Your task to perform on an android device: What's the weather? Image 0: 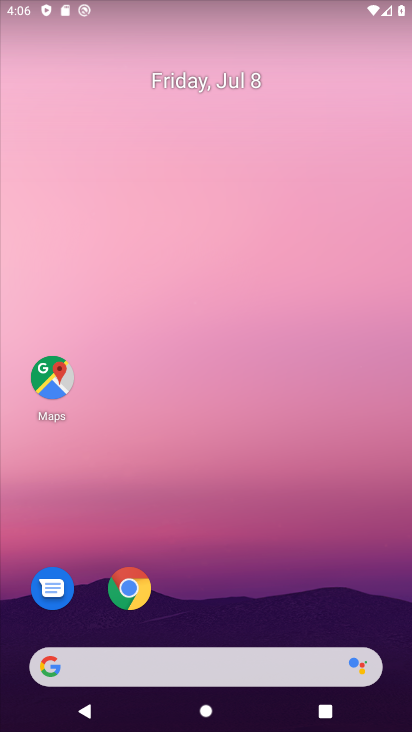
Step 0: click (180, 272)
Your task to perform on an android device: What's the weather? Image 1: 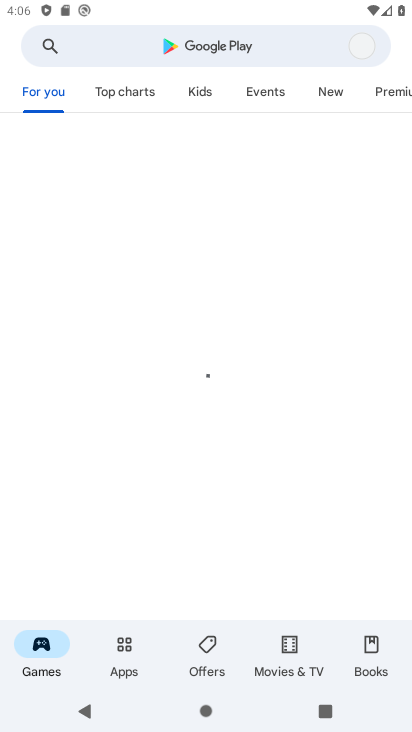
Step 1: press back button
Your task to perform on an android device: What's the weather? Image 2: 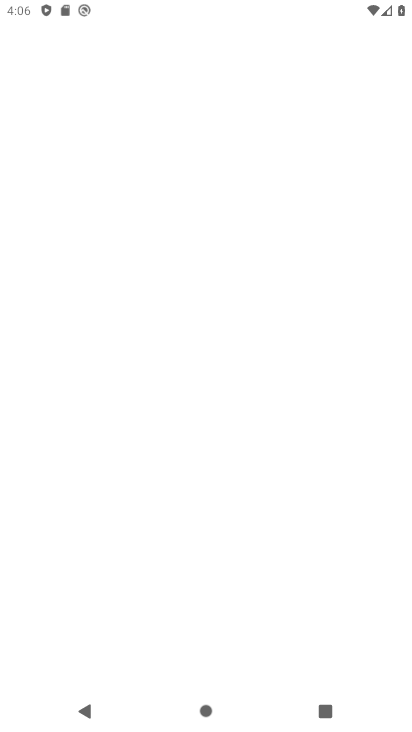
Step 2: press home button
Your task to perform on an android device: What's the weather? Image 3: 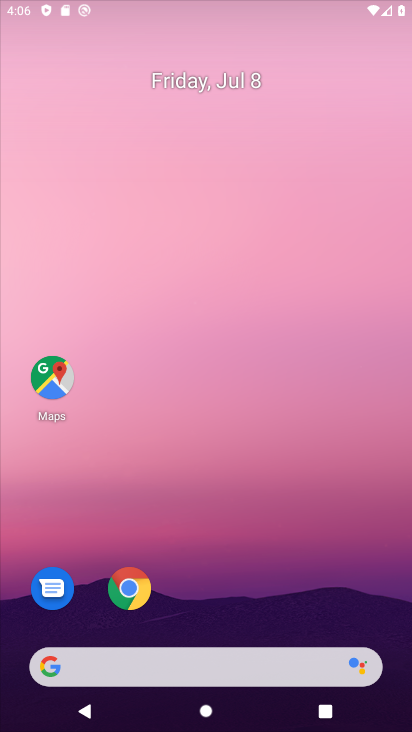
Step 3: press home button
Your task to perform on an android device: What's the weather? Image 4: 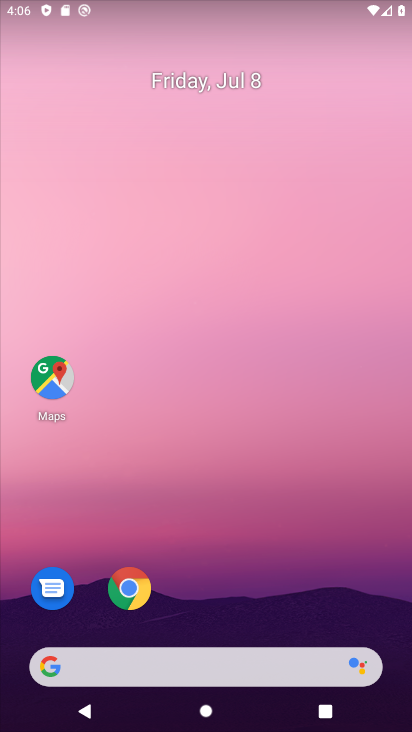
Step 4: drag from (142, 419) to (43, 52)
Your task to perform on an android device: What's the weather? Image 5: 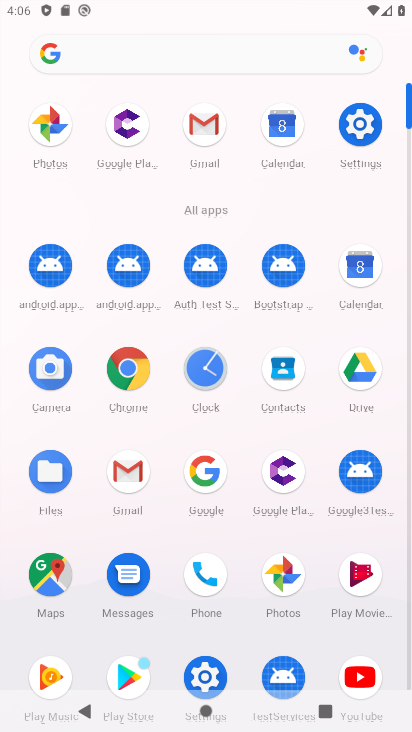
Step 5: click (134, 371)
Your task to perform on an android device: What's the weather? Image 6: 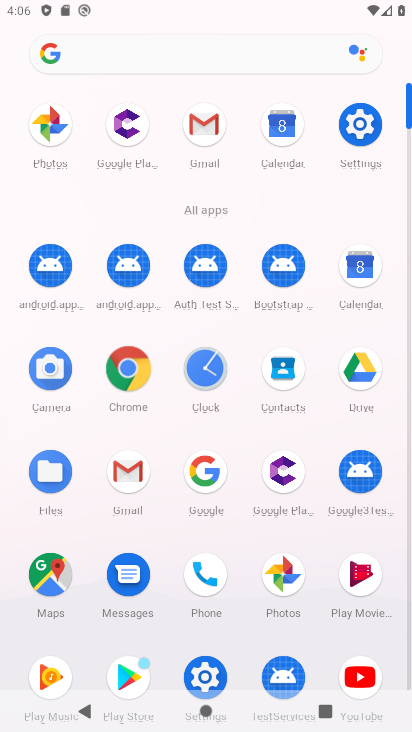
Step 6: click (108, 374)
Your task to perform on an android device: What's the weather? Image 7: 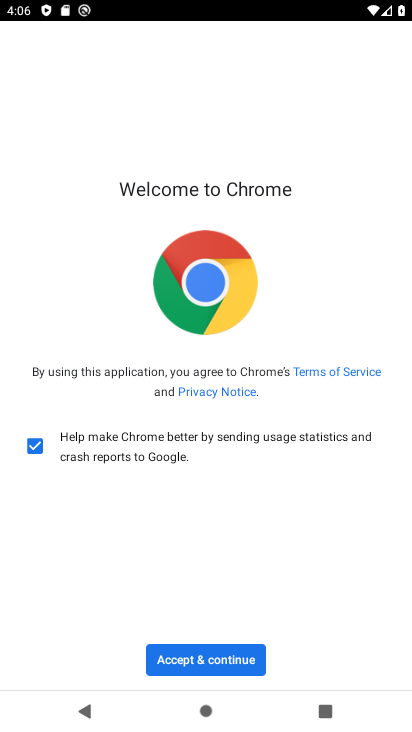
Step 7: click (222, 671)
Your task to perform on an android device: What's the weather? Image 8: 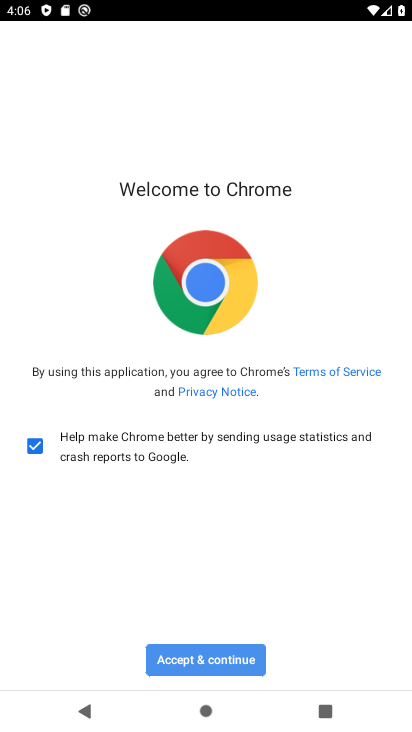
Step 8: click (236, 666)
Your task to perform on an android device: What's the weather? Image 9: 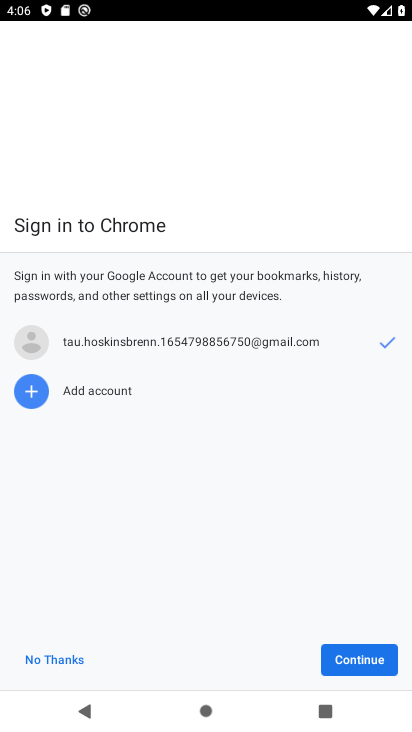
Step 9: click (372, 662)
Your task to perform on an android device: What's the weather? Image 10: 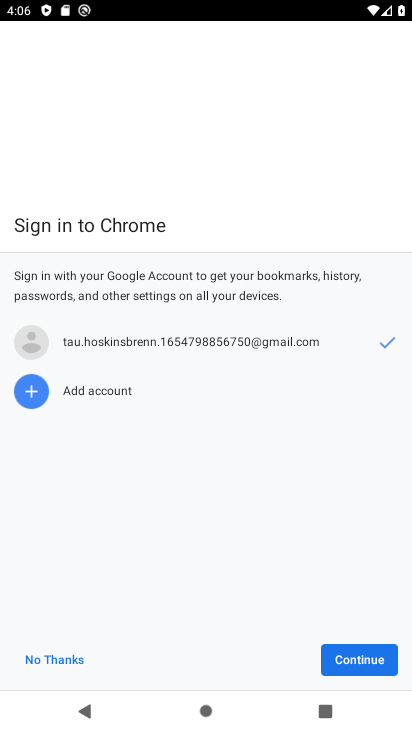
Step 10: click (372, 662)
Your task to perform on an android device: What's the weather? Image 11: 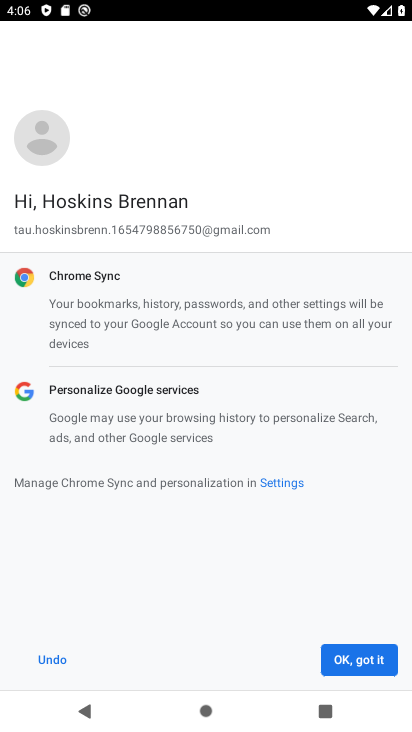
Step 11: click (371, 664)
Your task to perform on an android device: What's the weather? Image 12: 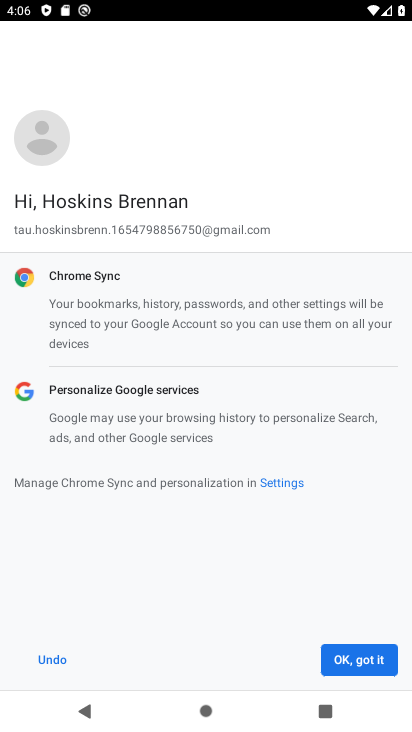
Step 12: click (377, 669)
Your task to perform on an android device: What's the weather? Image 13: 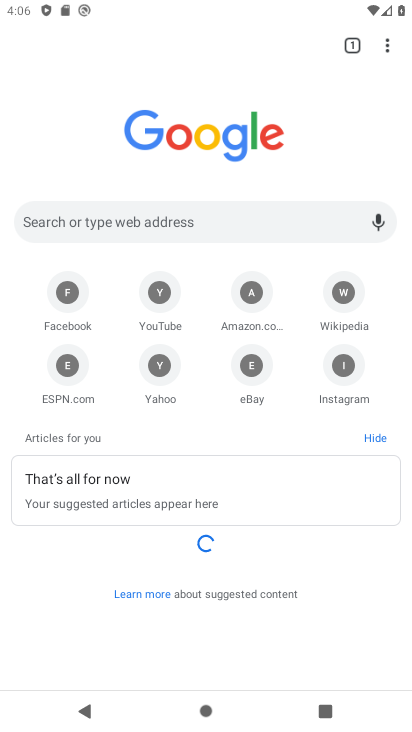
Step 13: click (53, 232)
Your task to perform on an android device: What's the weather? Image 14: 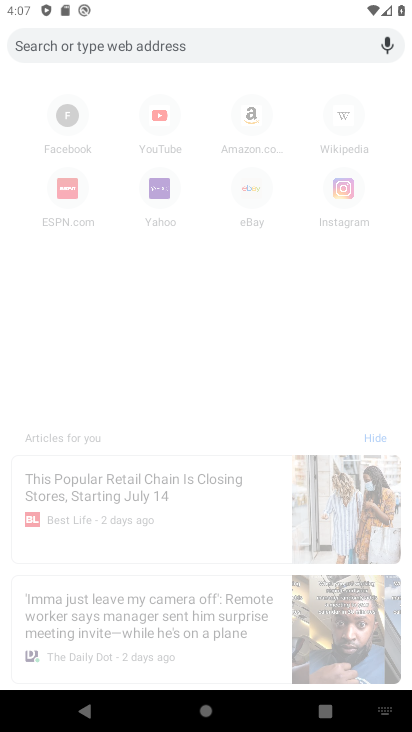
Step 14: type "weather"
Your task to perform on an android device: What's the weather? Image 15: 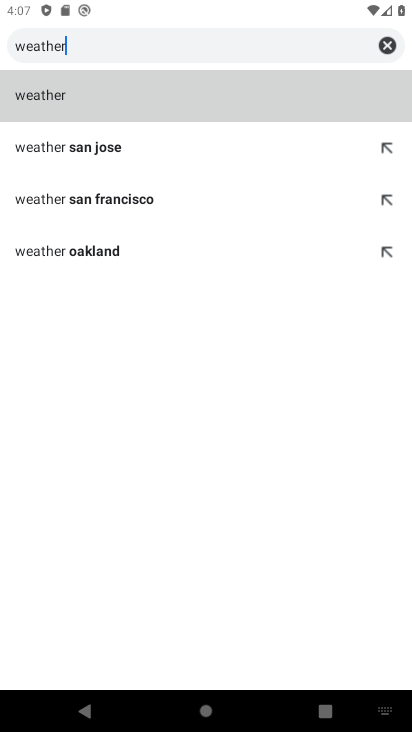
Step 15: type " today"
Your task to perform on an android device: What's the weather? Image 16: 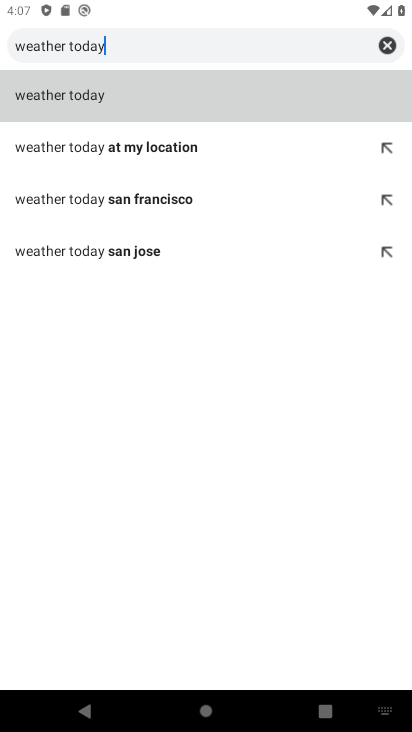
Step 16: click (191, 147)
Your task to perform on an android device: What's the weather? Image 17: 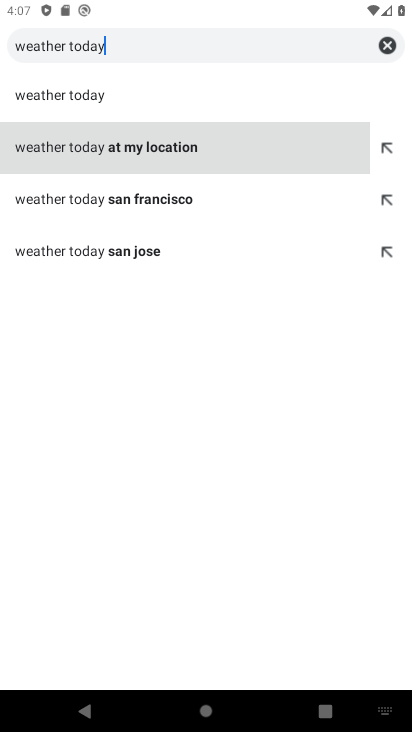
Step 17: click (218, 132)
Your task to perform on an android device: What's the weather? Image 18: 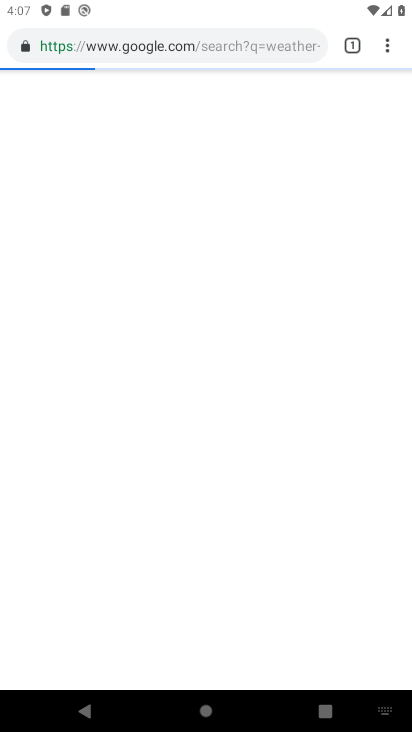
Step 18: click (390, 151)
Your task to perform on an android device: What's the weather? Image 19: 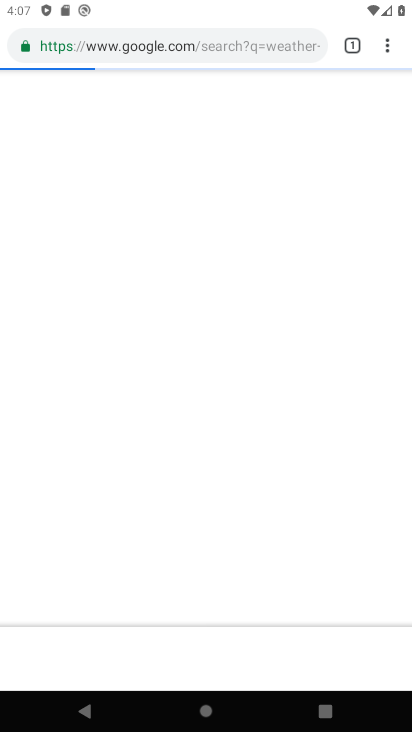
Step 19: click (390, 151)
Your task to perform on an android device: What's the weather? Image 20: 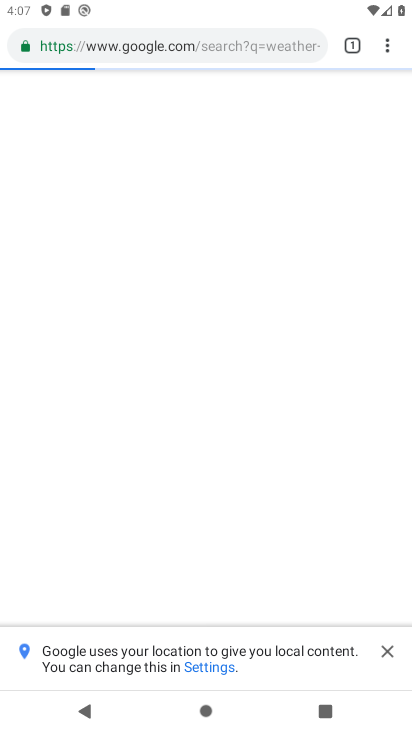
Step 20: click (390, 151)
Your task to perform on an android device: What's the weather? Image 21: 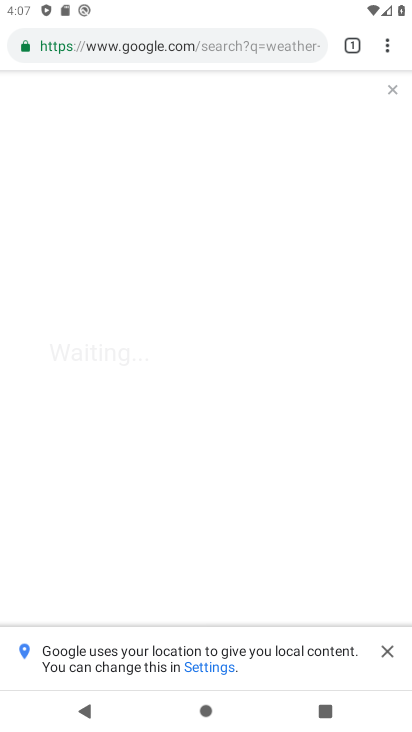
Step 21: drag from (247, 347) to (249, 262)
Your task to perform on an android device: What's the weather? Image 22: 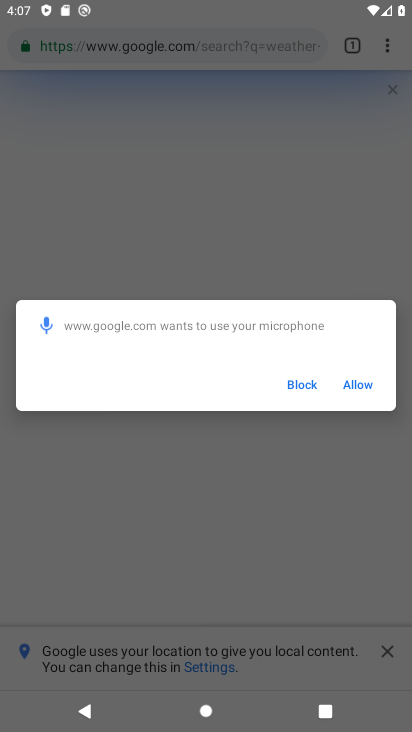
Step 22: drag from (237, 466) to (362, 361)
Your task to perform on an android device: What's the weather? Image 23: 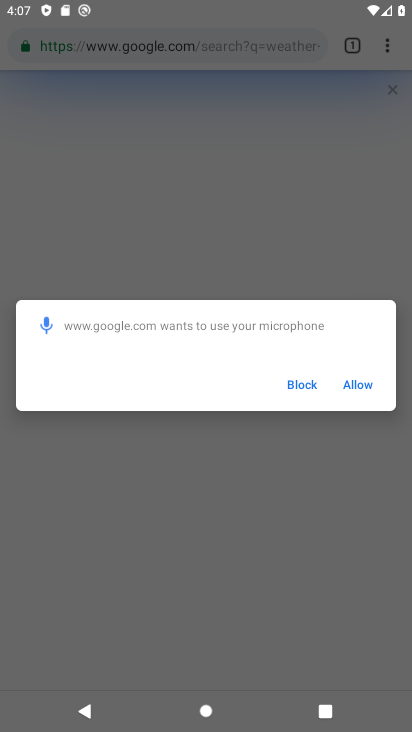
Step 23: click (347, 379)
Your task to perform on an android device: What's the weather? Image 24: 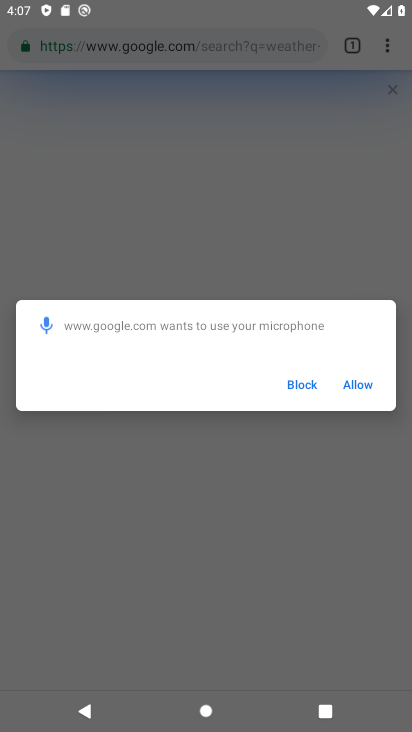
Step 24: click (346, 391)
Your task to perform on an android device: What's the weather? Image 25: 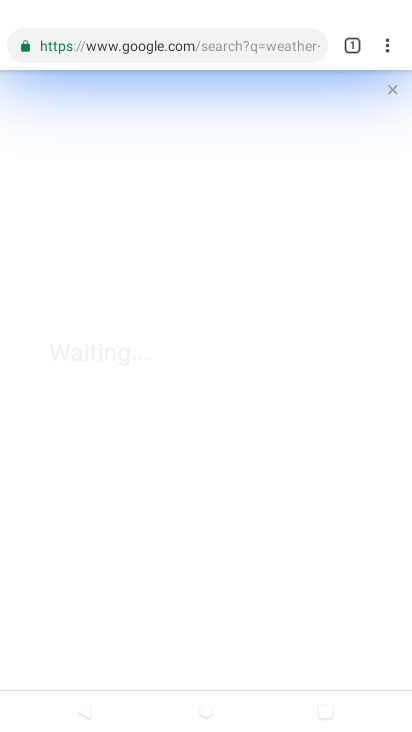
Step 25: click (349, 387)
Your task to perform on an android device: What's the weather? Image 26: 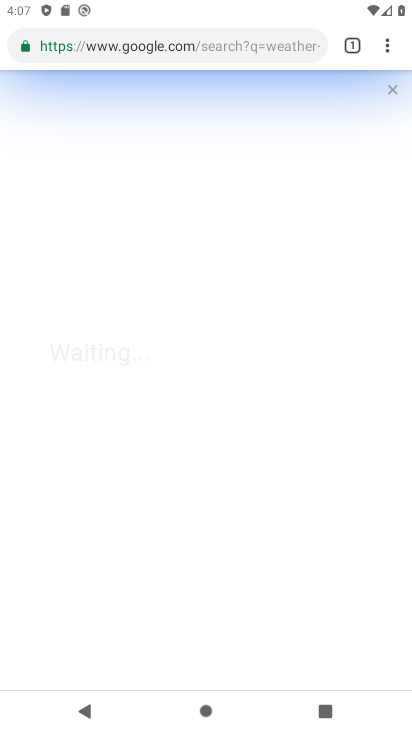
Step 26: click (349, 387)
Your task to perform on an android device: What's the weather? Image 27: 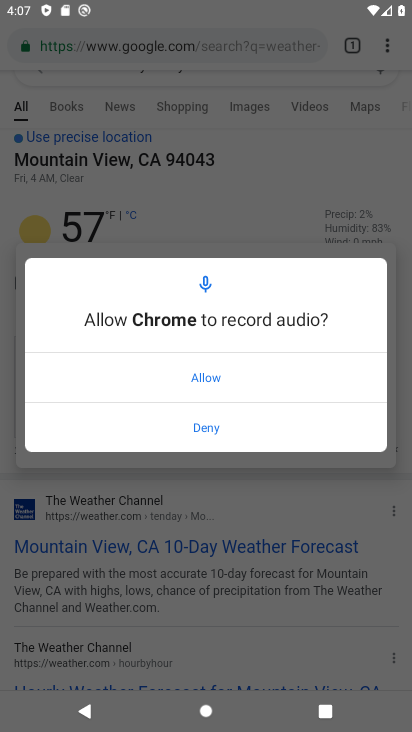
Step 27: task complete